Your task to perform on an android device: toggle notification dots Image 0: 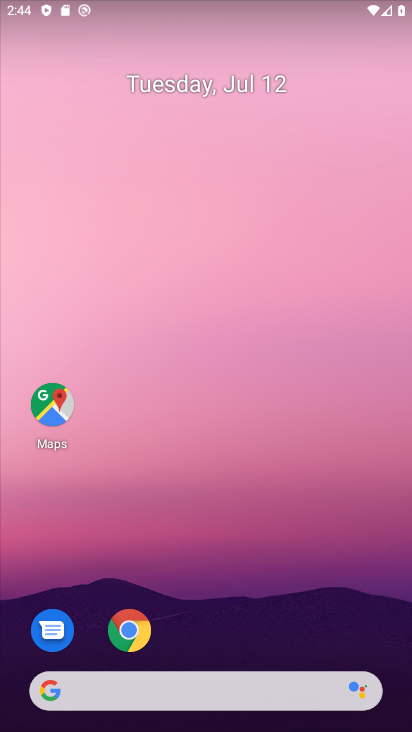
Step 0: drag from (375, 667) to (405, 16)
Your task to perform on an android device: toggle notification dots Image 1: 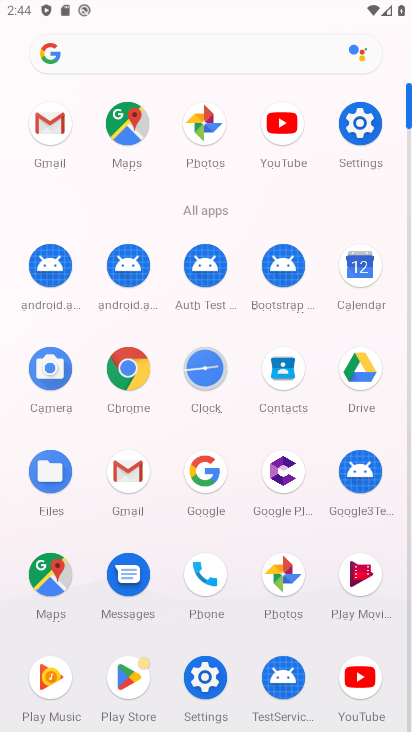
Step 1: click (358, 127)
Your task to perform on an android device: toggle notification dots Image 2: 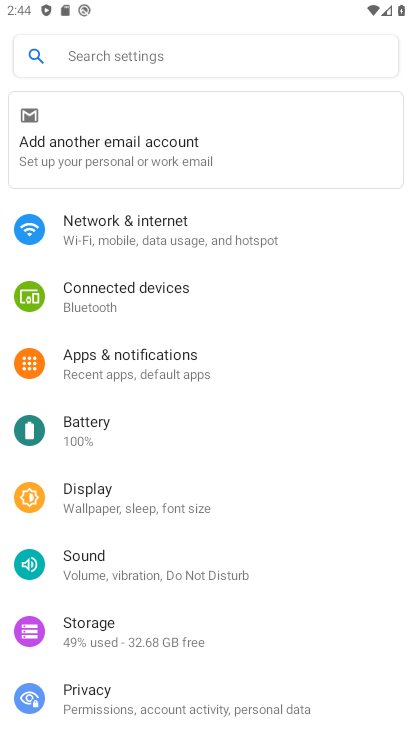
Step 2: click (178, 367)
Your task to perform on an android device: toggle notification dots Image 3: 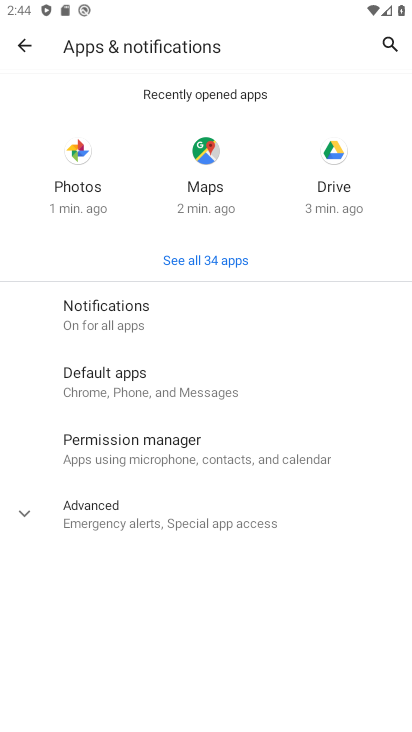
Step 3: click (138, 319)
Your task to perform on an android device: toggle notification dots Image 4: 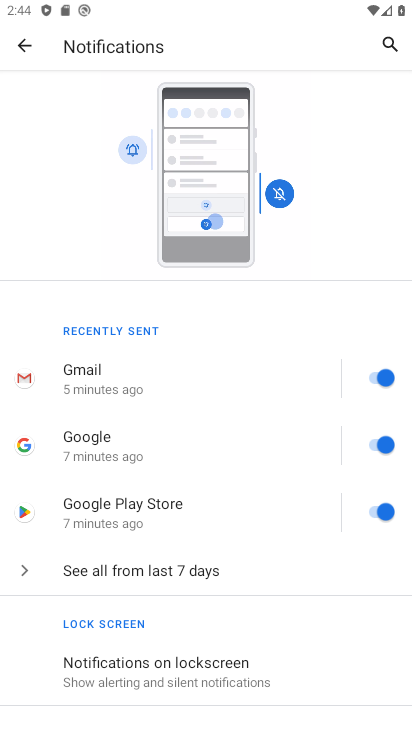
Step 4: drag from (260, 622) to (293, 291)
Your task to perform on an android device: toggle notification dots Image 5: 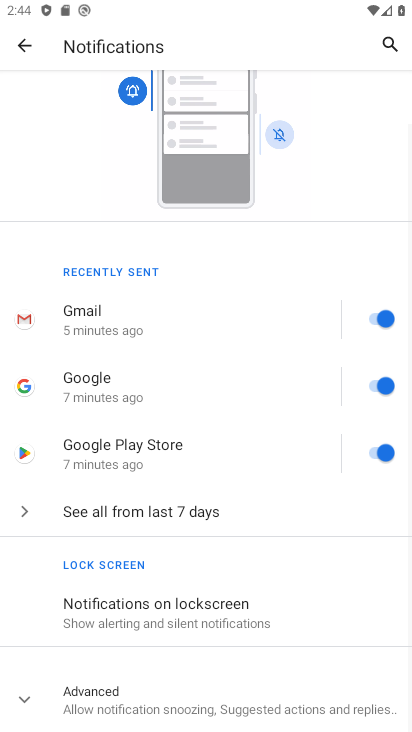
Step 5: click (243, 706)
Your task to perform on an android device: toggle notification dots Image 6: 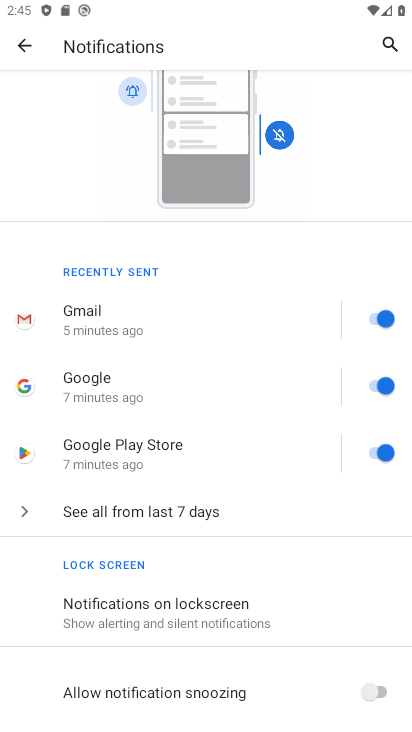
Step 6: drag from (243, 706) to (287, 392)
Your task to perform on an android device: toggle notification dots Image 7: 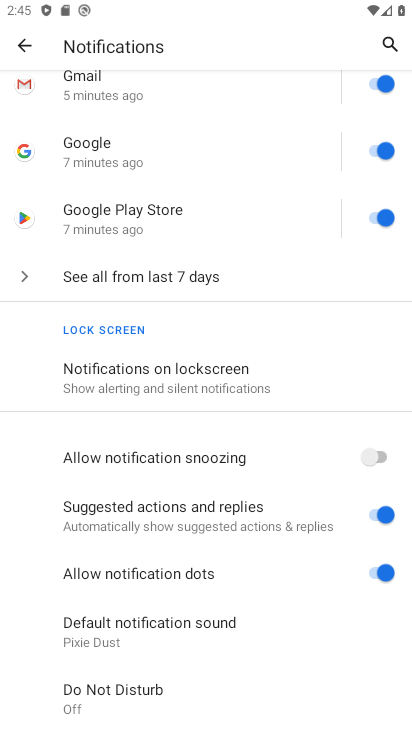
Step 7: click (374, 570)
Your task to perform on an android device: toggle notification dots Image 8: 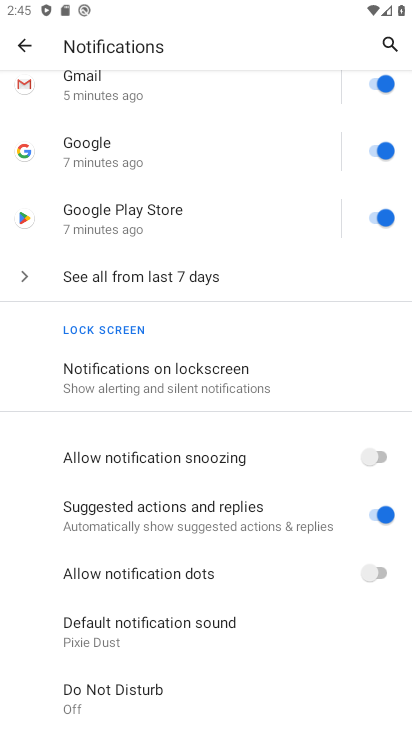
Step 8: task complete